Your task to perform on an android device: Go to display settings Image 0: 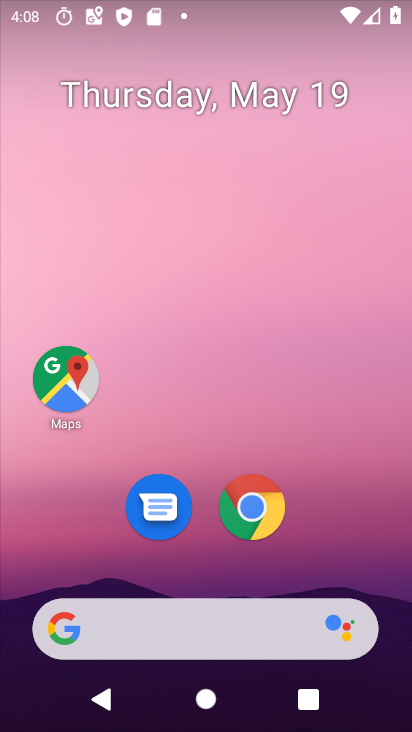
Step 0: click (371, 270)
Your task to perform on an android device: Go to display settings Image 1: 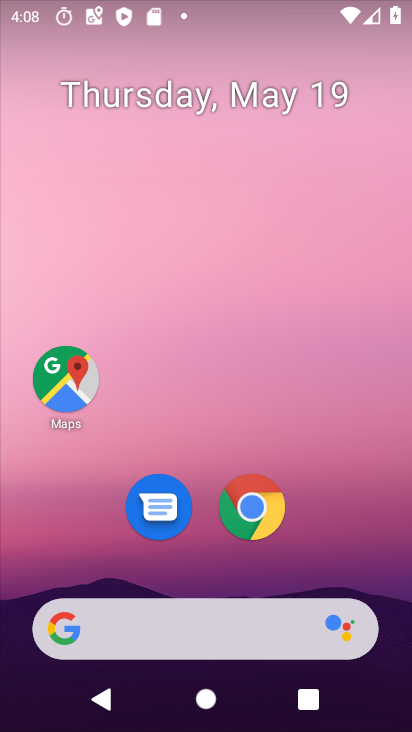
Step 1: drag from (384, 668) to (350, 185)
Your task to perform on an android device: Go to display settings Image 2: 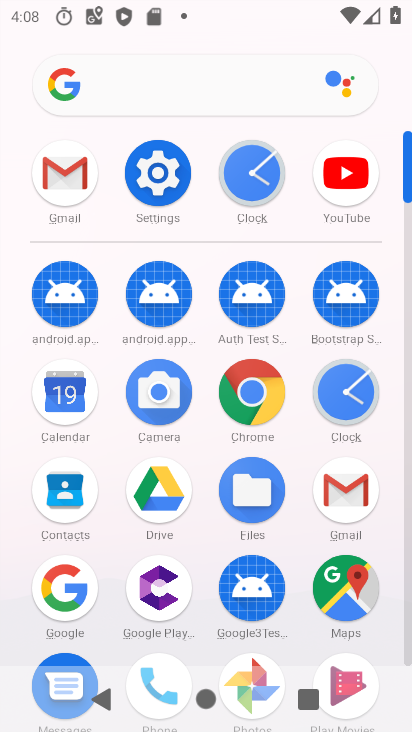
Step 2: click (174, 177)
Your task to perform on an android device: Go to display settings Image 3: 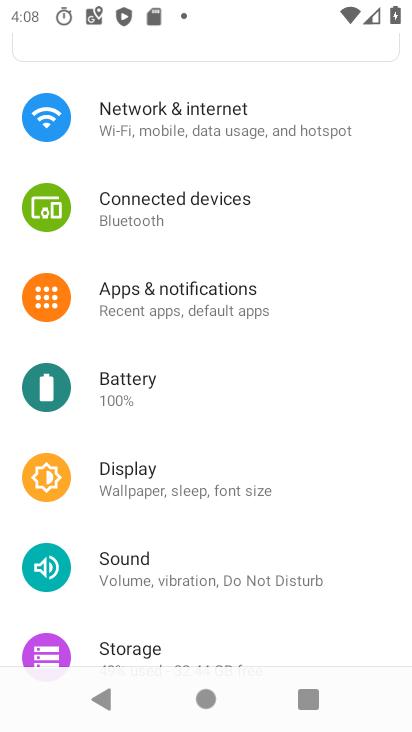
Step 3: click (123, 463)
Your task to perform on an android device: Go to display settings Image 4: 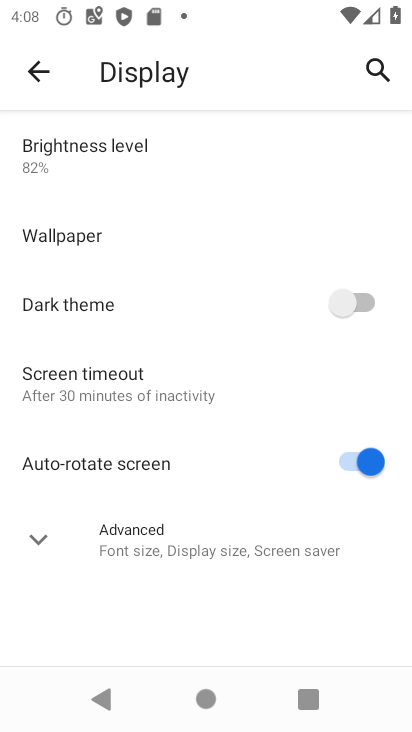
Step 4: task complete